Your task to perform on an android device: Go to calendar. Show me events next week Image 0: 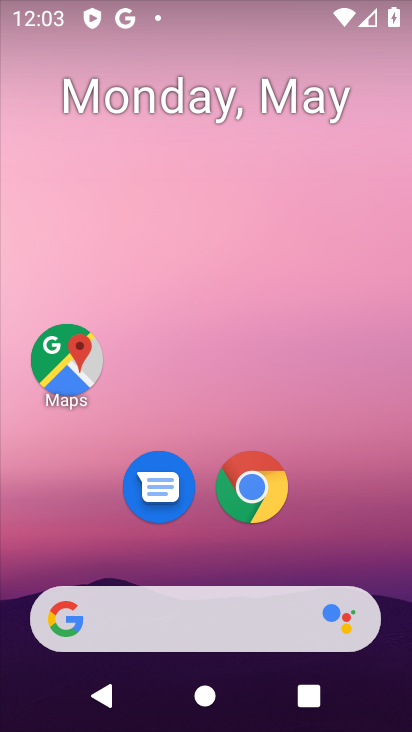
Step 0: drag from (323, 582) to (383, 15)
Your task to perform on an android device: Go to calendar. Show me events next week Image 1: 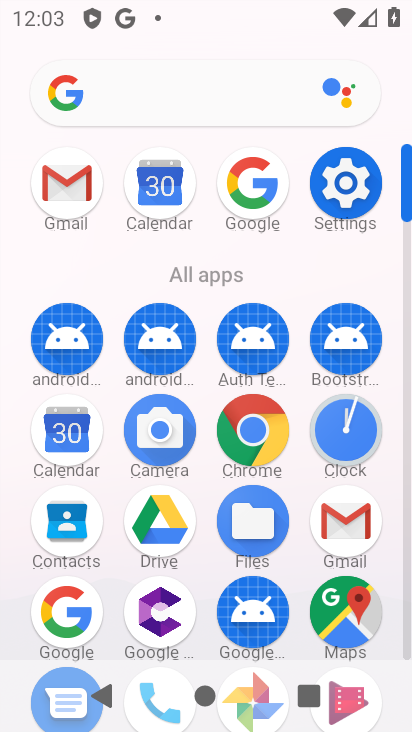
Step 1: click (77, 440)
Your task to perform on an android device: Go to calendar. Show me events next week Image 2: 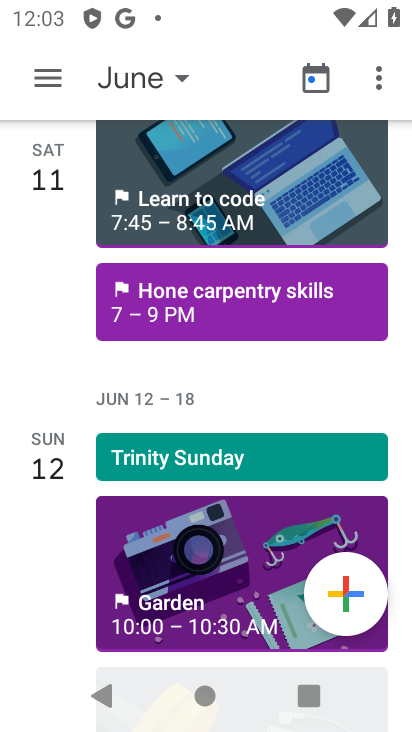
Step 2: click (150, 80)
Your task to perform on an android device: Go to calendar. Show me events next week Image 3: 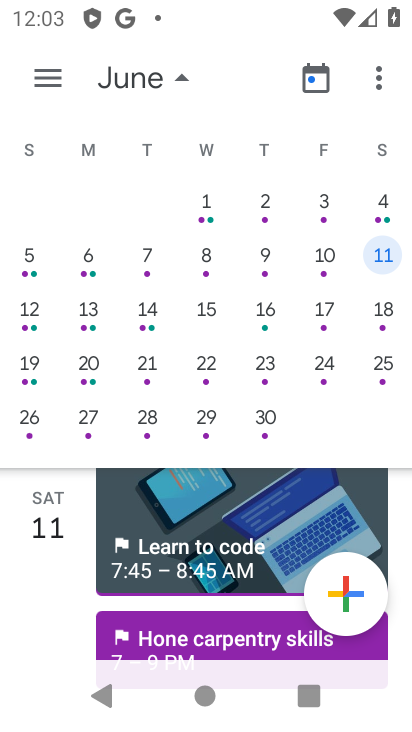
Step 3: click (38, 261)
Your task to perform on an android device: Go to calendar. Show me events next week Image 4: 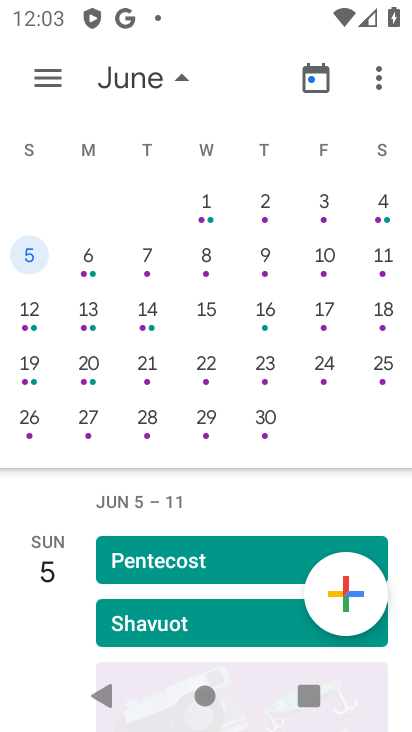
Step 4: task complete